Your task to perform on an android device: turn on airplane mode Image 0: 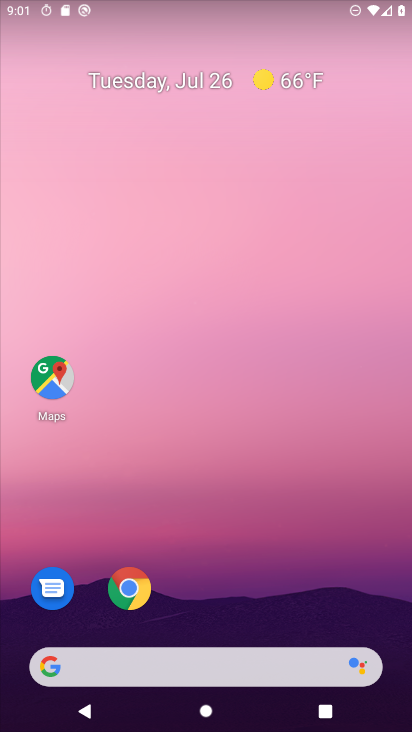
Step 0: drag from (237, 724) to (236, 223)
Your task to perform on an android device: turn on airplane mode Image 1: 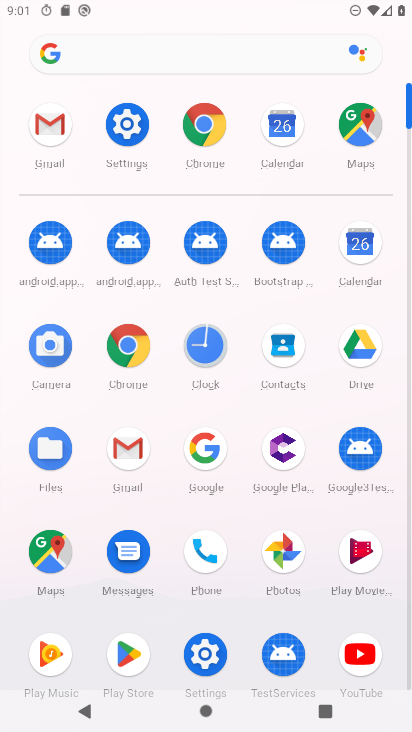
Step 1: click (126, 124)
Your task to perform on an android device: turn on airplane mode Image 2: 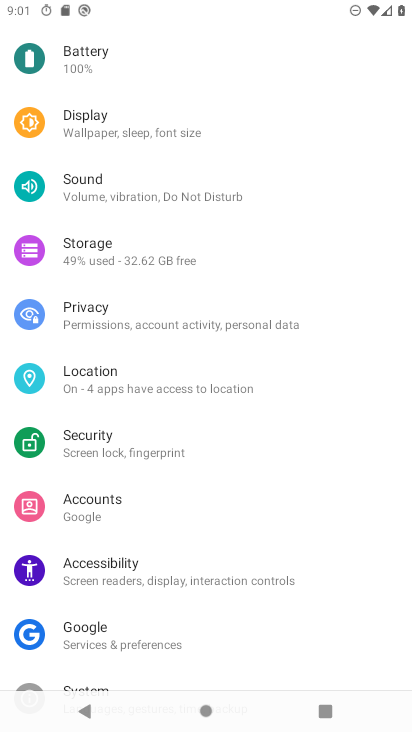
Step 2: drag from (128, 125) to (98, 543)
Your task to perform on an android device: turn on airplane mode Image 3: 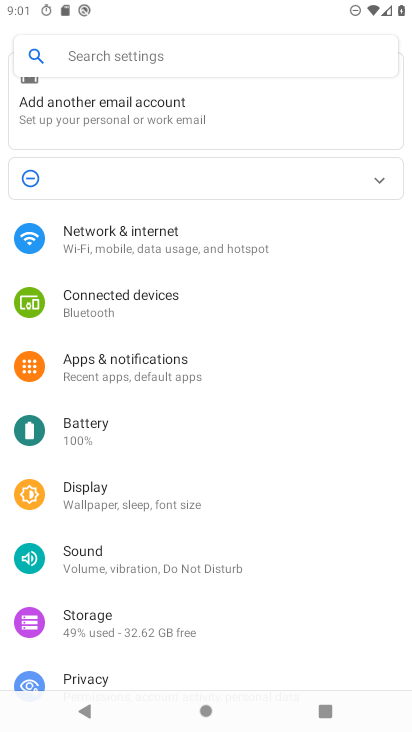
Step 3: click (105, 239)
Your task to perform on an android device: turn on airplane mode Image 4: 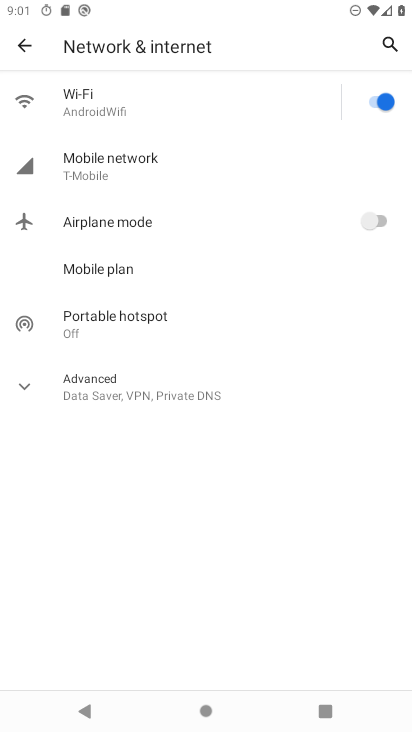
Step 4: click (380, 222)
Your task to perform on an android device: turn on airplane mode Image 5: 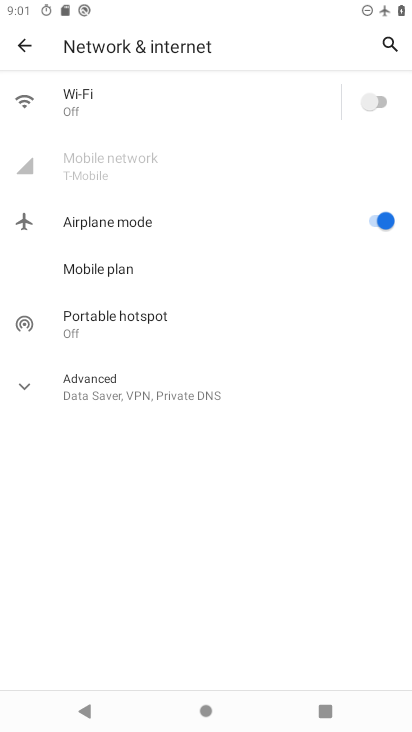
Step 5: task complete